Your task to perform on an android device: When is my next meeting? Image 0: 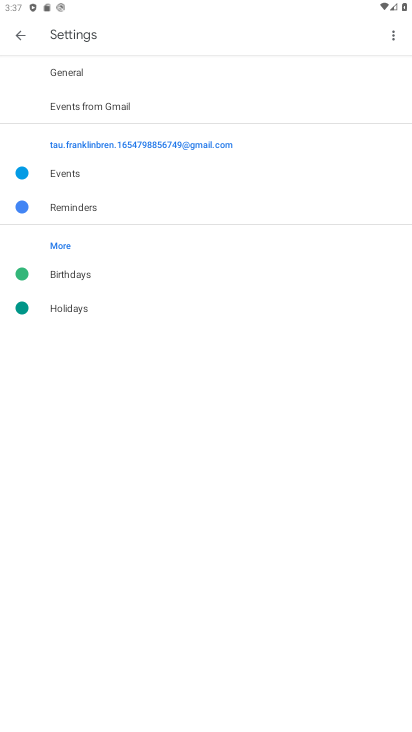
Step 0: press home button
Your task to perform on an android device: When is my next meeting? Image 1: 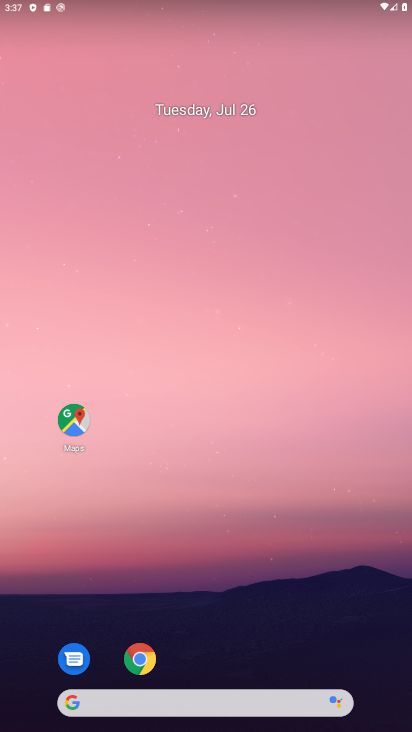
Step 1: drag from (289, 628) to (261, 120)
Your task to perform on an android device: When is my next meeting? Image 2: 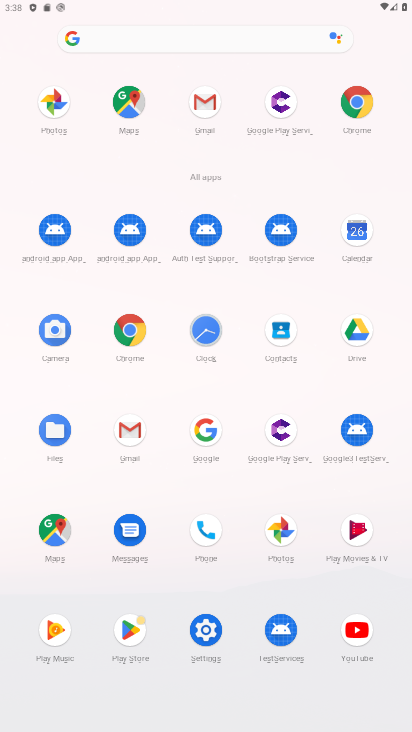
Step 2: click (353, 242)
Your task to perform on an android device: When is my next meeting? Image 3: 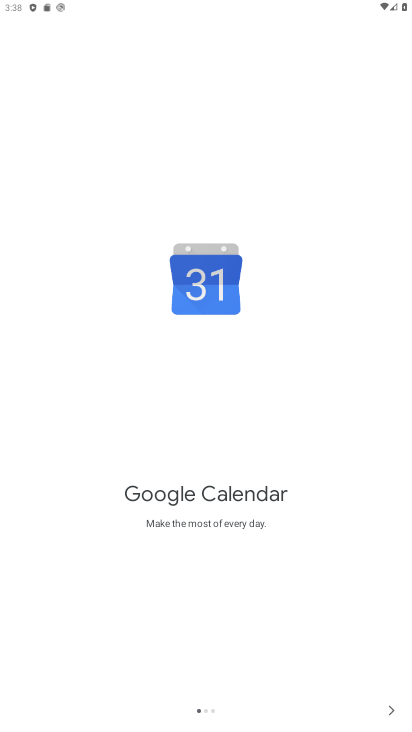
Step 3: click (388, 708)
Your task to perform on an android device: When is my next meeting? Image 4: 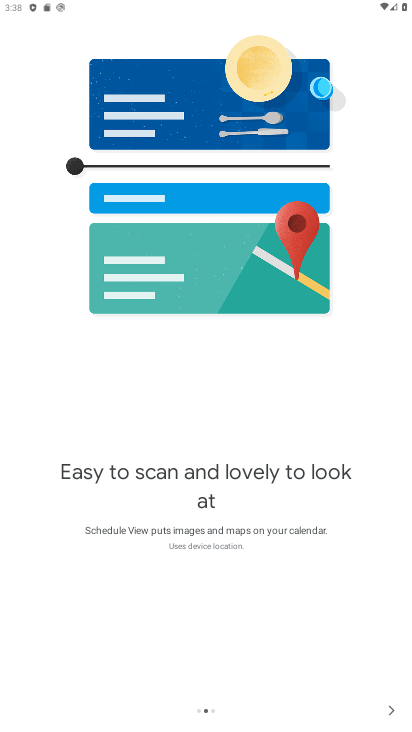
Step 4: click (386, 707)
Your task to perform on an android device: When is my next meeting? Image 5: 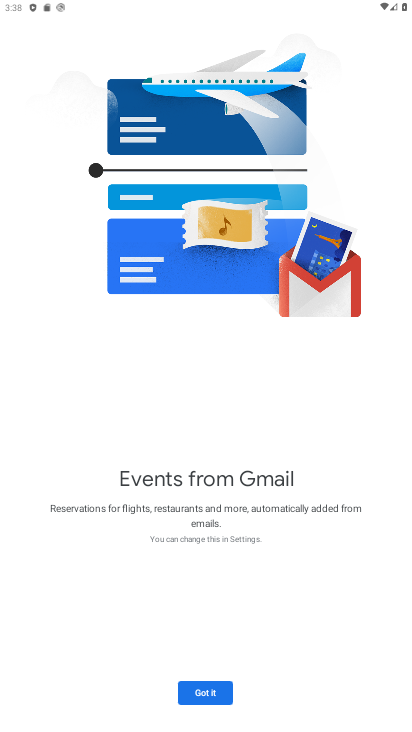
Step 5: click (192, 697)
Your task to perform on an android device: When is my next meeting? Image 6: 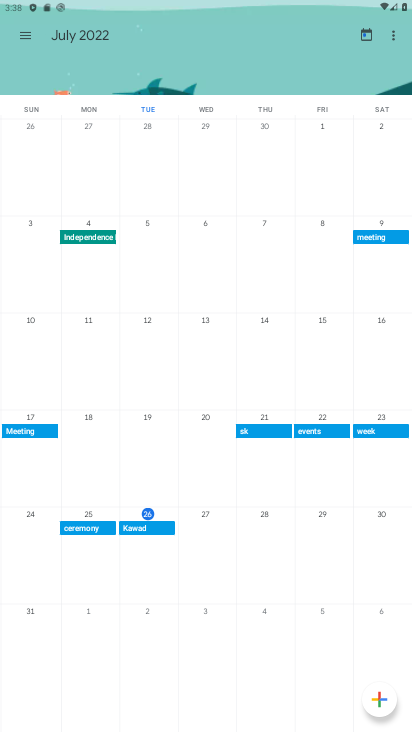
Step 6: click (141, 518)
Your task to perform on an android device: When is my next meeting? Image 7: 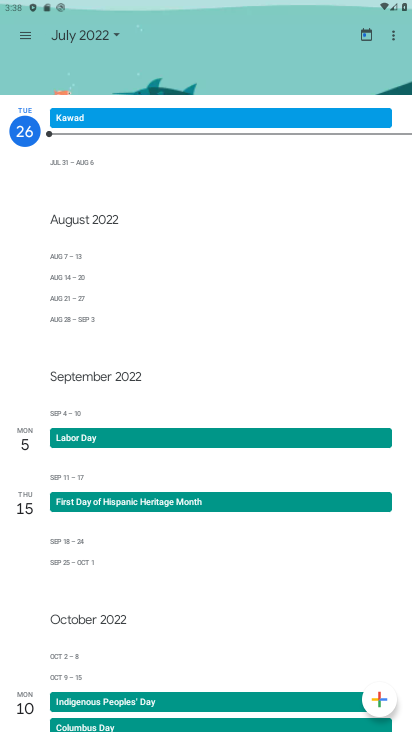
Step 7: task complete